Your task to perform on an android device: Open location settings Image 0: 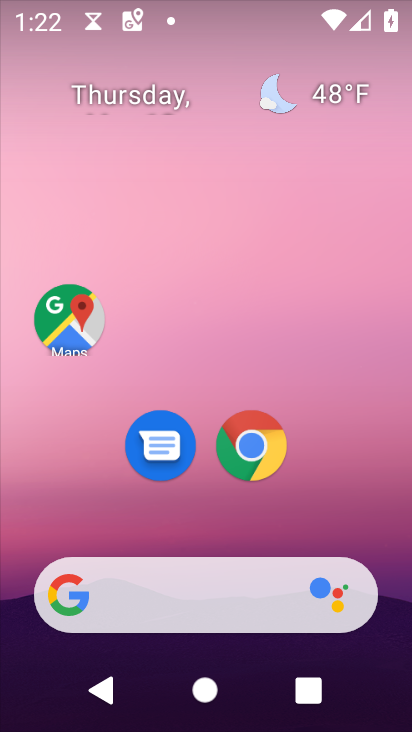
Step 0: drag from (253, 511) to (265, 38)
Your task to perform on an android device: Open location settings Image 1: 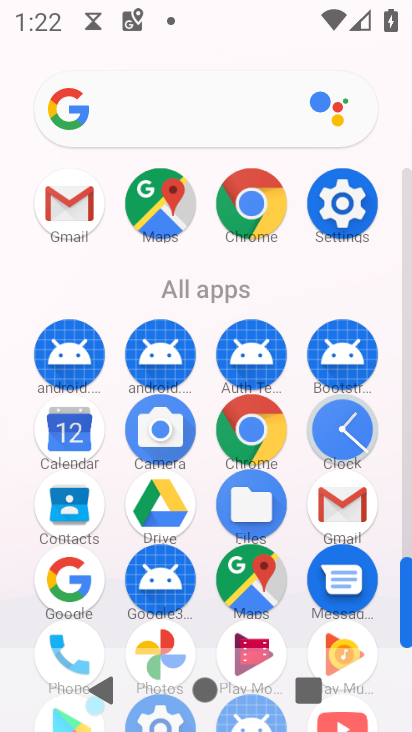
Step 1: click (345, 206)
Your task to perform on an android device: Open location settings Image 2: 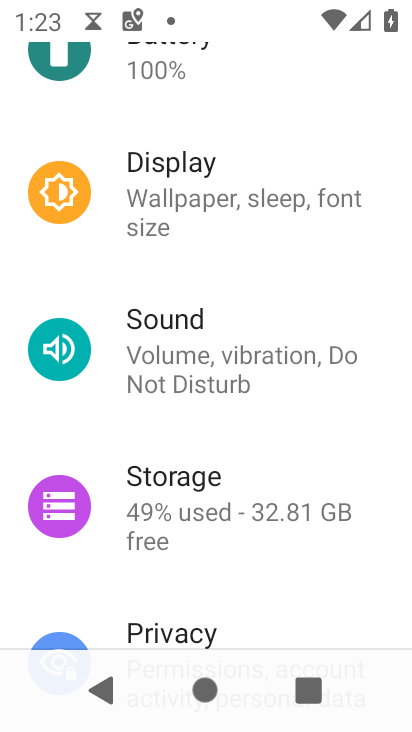
Step 2: drag from (283, 516) to (284, 118)
Your task to perform on an android device: Open location settings Image 3: 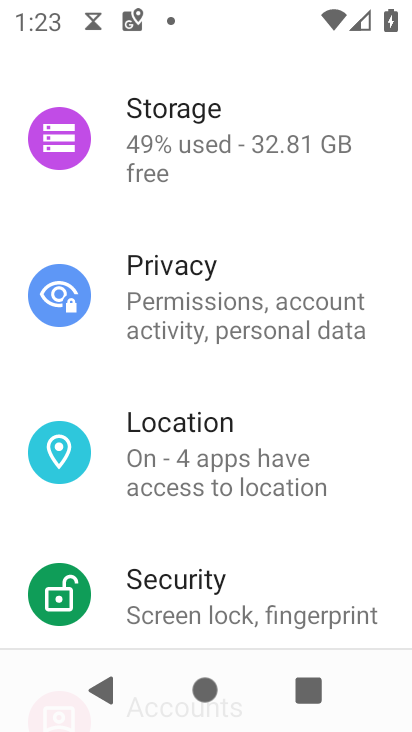
Step 3: click (236, 474)
Your task to perform on an android device: Open location settings Image 4: 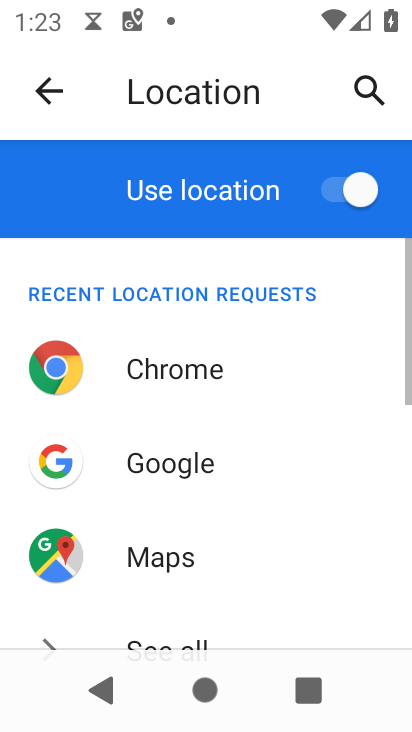
Step 4: task complete